Your task to perform on an android device: open app "Reddit" (install if not already installed), go to login, and select forgot password Image 0: 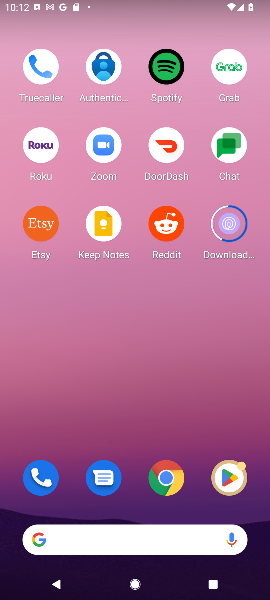
Step 0: click (215, 481)
Your task to perform on an android device: open app "Reddit" (install if not already installed), go to login, and select forgot password Image 1: 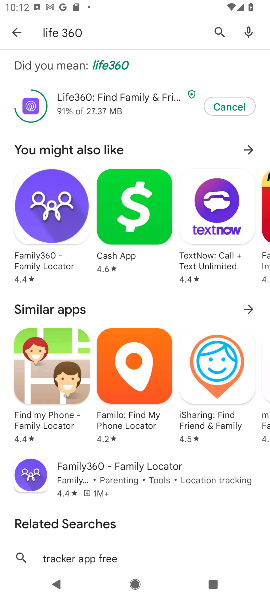
Step 1: click (212, 38)
Your task to perform on an android device: open app "Reddit" (install if not already installed), go to login, and select forgot password Image 2: 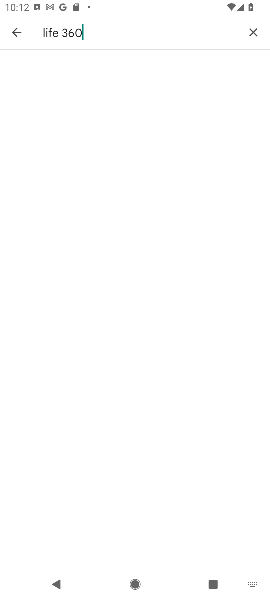
Step 2: click (260, 38)
Your task to perform on an android device: open app "Reddit" (install if not already installed), go to login, and select forgot password Image 3: 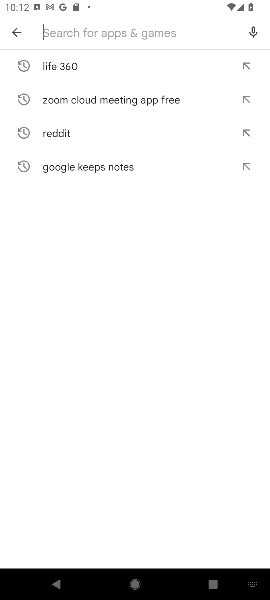
Step 3: type "reddit"
Your task to perform on an android device: open app "Reddit" (install if not already installed), go to login, and select forgot password Image 4: 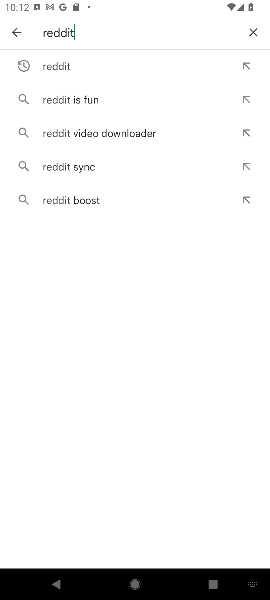
Step 4: click (118, 71)
Your task to perform on an android device: open app "Reddit" (install if not already installed), go to login, and select forgot password Image 5: 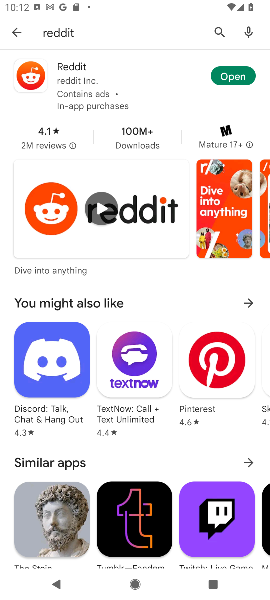
Step 5: click (234, 85)
Your task to perform on an android device: open app "Reddit" (install if not already installed), go to login, and select forgot password Image 6: 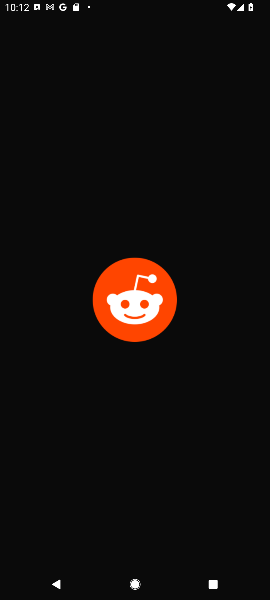
Step 6: task complete